Your task to perform on an android device: Go to battery settings Image 0: 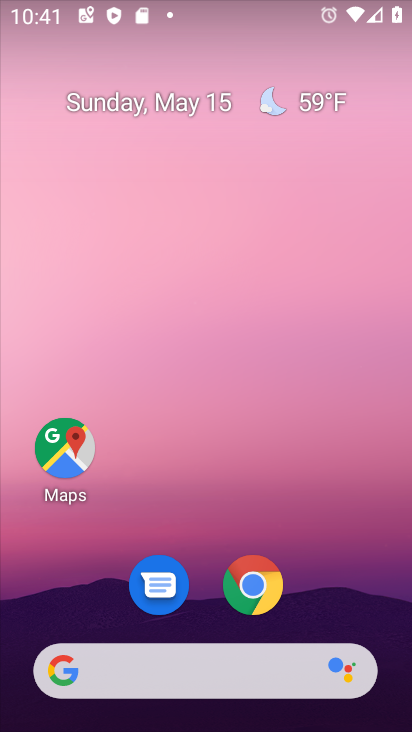
Step 0: drag from (247, 507) to (245, 46)
Your task to perform on an android device: Go to battery settings Image 1: 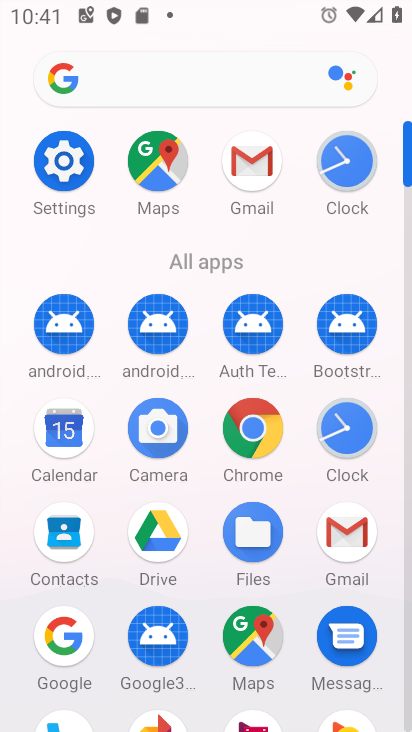
Step 1: click (71, 163)
Your task to perform on an android device: Go to battery settings Image 2: 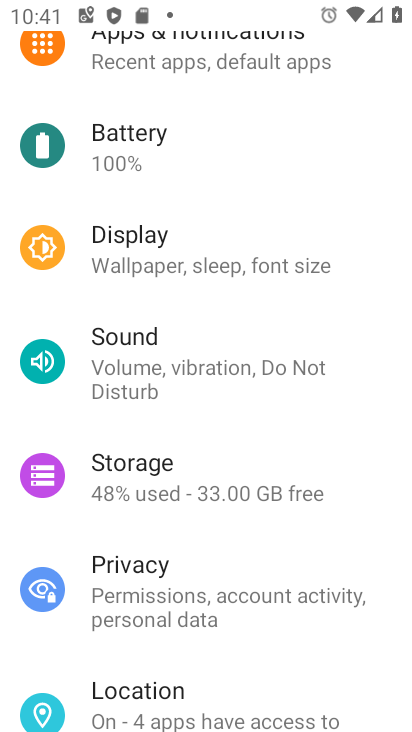
Step 2: click (208, 149)
Your task to perform on an android device: Go to battery settings Image 3: 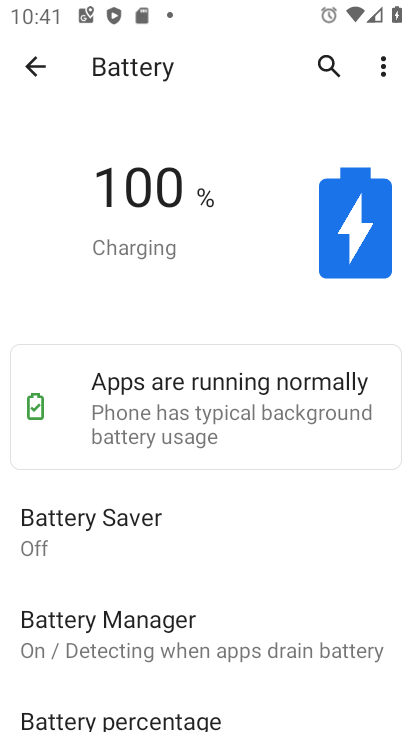
Step 3: task complete